Your task to perform on an android device: Open display settings Image 0: 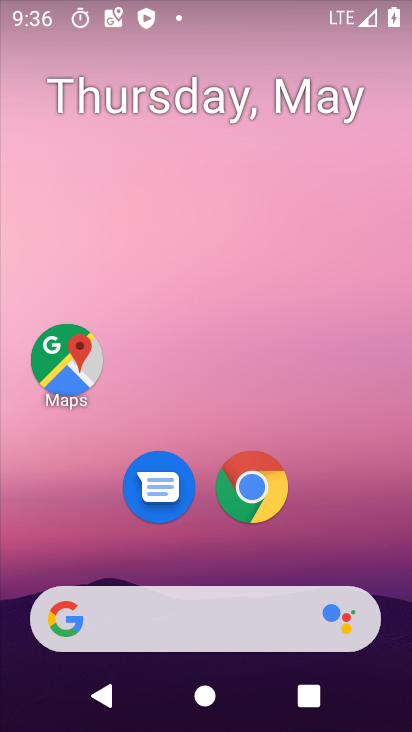
Step 0: drag from (172, 729) to (308, 147)
Your task to perform on an android device: Open display settings Image 1: 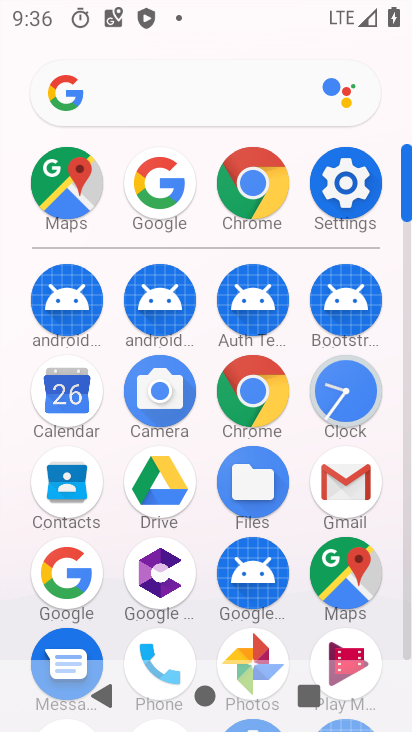
Step 1: click (343, 200)
Your task to perform on an android device: Open display settings Image 2: 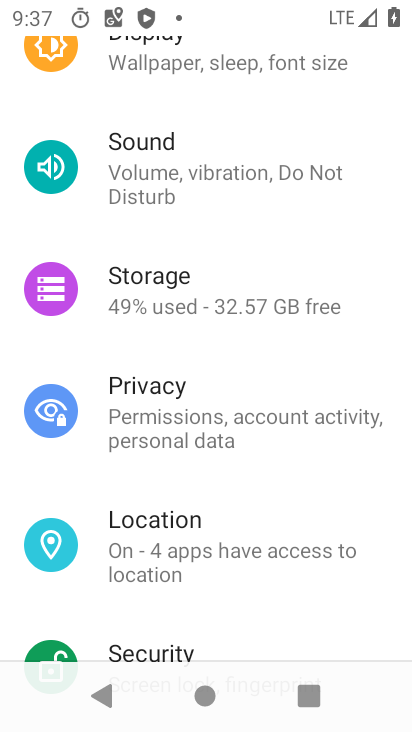
Step 2: drag from (174, 519) to (236, 728)
Your task to perform on an android device: Open display settings Image 3: 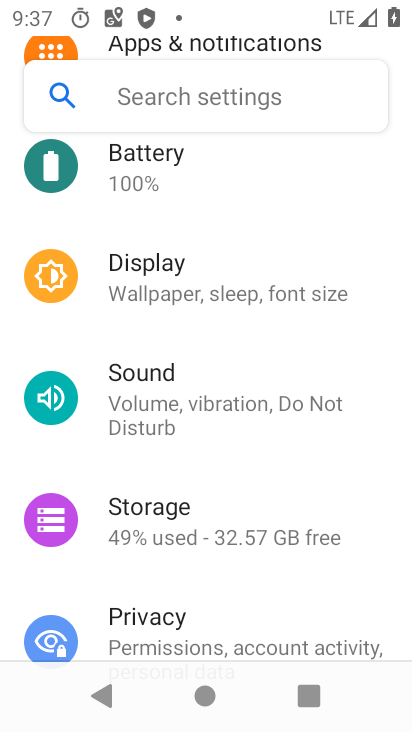
Step 3: click (217, 282)
Your task to perform on an android device: Open display settings Image 4: 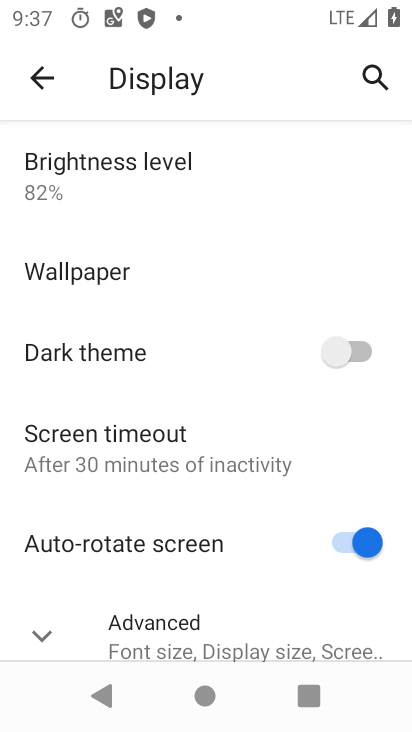
Step 4: task complete